Your task to perform on an android device: Go to ESPN.com Image 0: 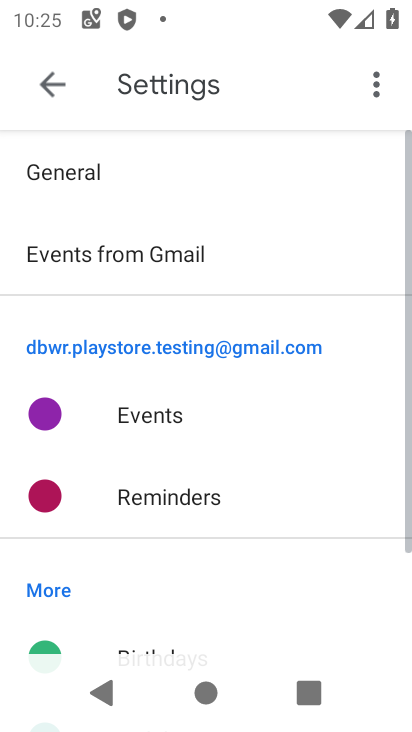
Step 0: drag from (185, 586) to (284, 287)
Your task to perform on an android device: Go to ESPN.com Image 1: 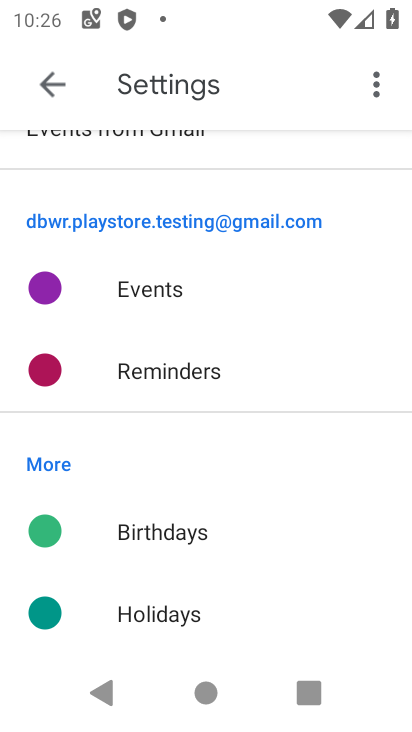
Step 1: press home button
Your task to perform on an android device: Go to ESPN.com Image 2: 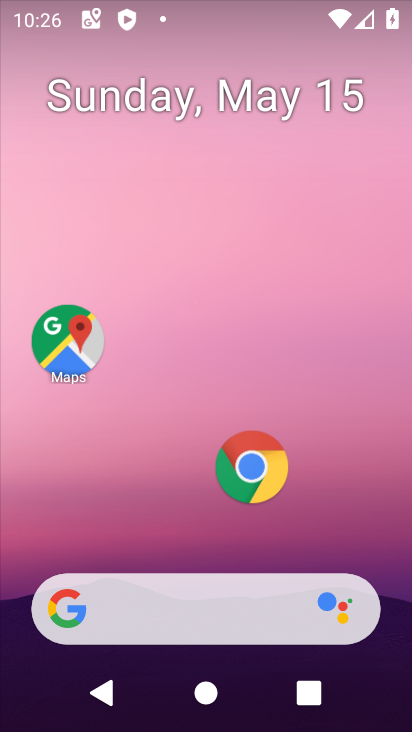
Step 2: drag from (234, 449) to (288, 340)
Your task to perform on an android device: Go to ESPN.com Image 3: 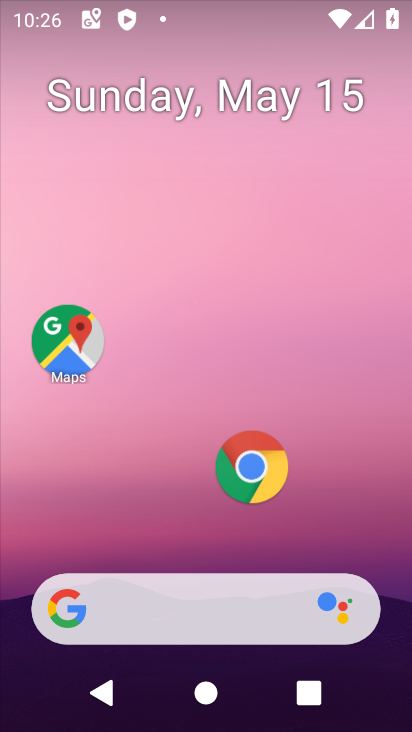
Step 3: drag from (174, 500) to (172, 51)
Your task to perform on an android device: Go to ESPN.com Image 4: 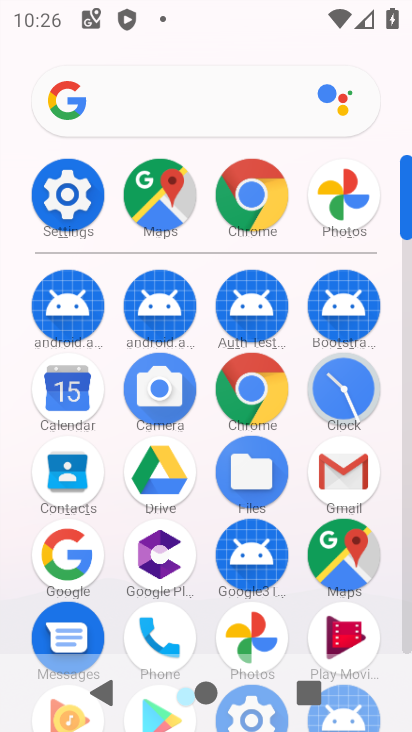
Step 4: click (152, 113)
Your task to perform on an android device: Go to ESPN.com Image 5: 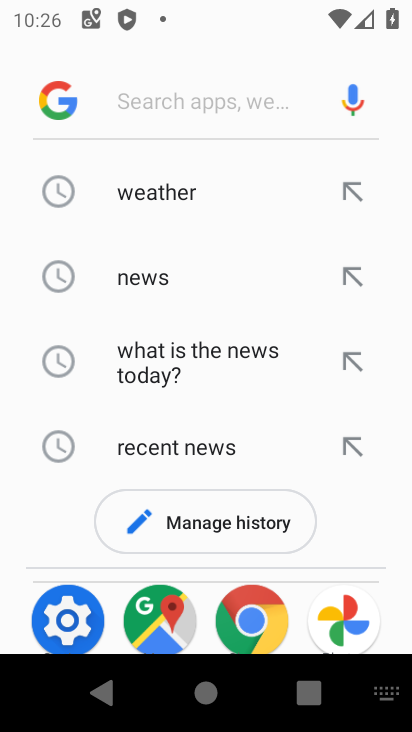
Step 5: type "espn"
Your task to perform on an android device: Go to ESPN.com Image 6: 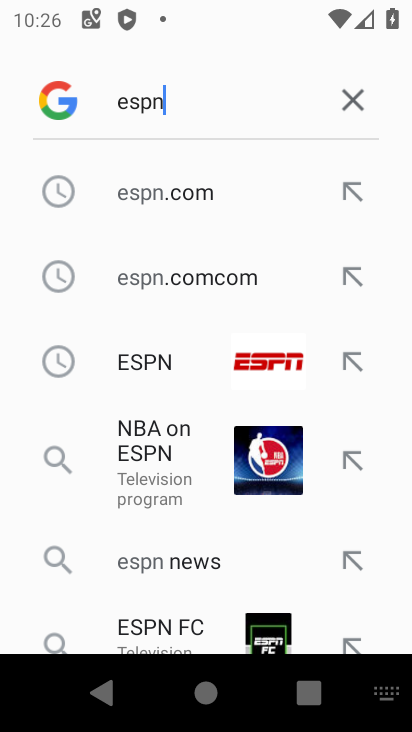
Step 6: click (189, 213)
Your task to perform on an android device: Go to ESPN.com Image 7: 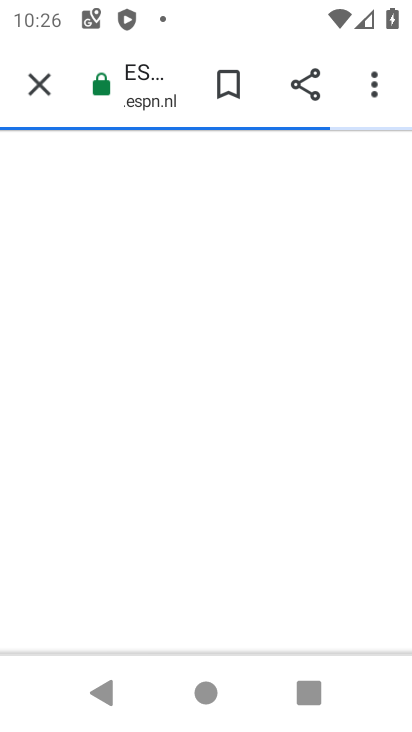
Step 7: task complete